Your task to perform on an android device: toggle notification dots Image 0: 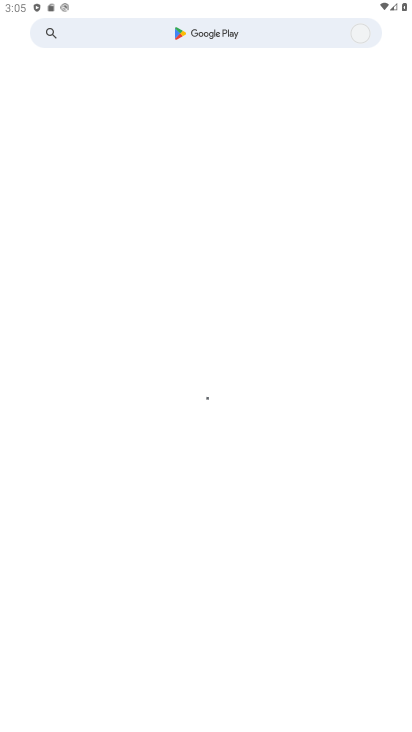
Step 0: press home button
Your task to perform on an android device: toggle notification dots Image 1: 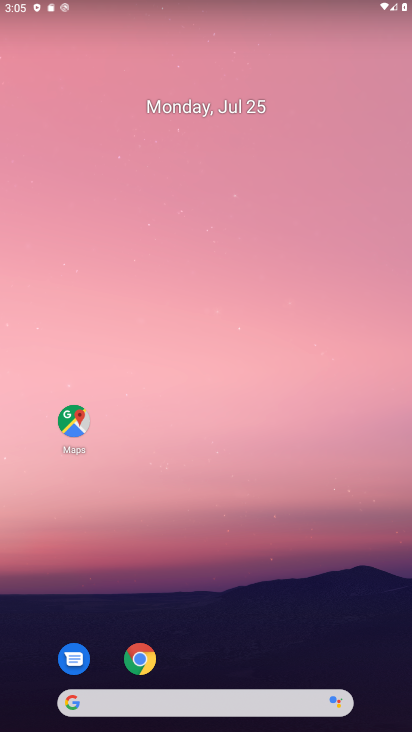
Step 1: drag from (302, 142) to (322, 32)
Your task to perform on an android device: toggle notification dots Image 2: 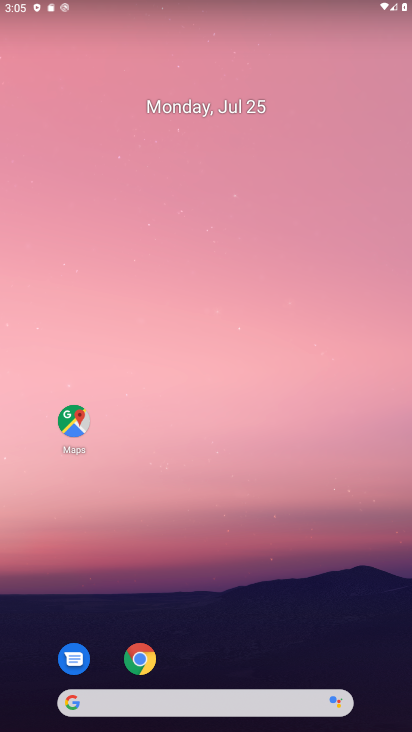
Step 2: drag from (173, 638) to (187, 278)
Your task to perform on an android device: toggle notification dots Image 3: 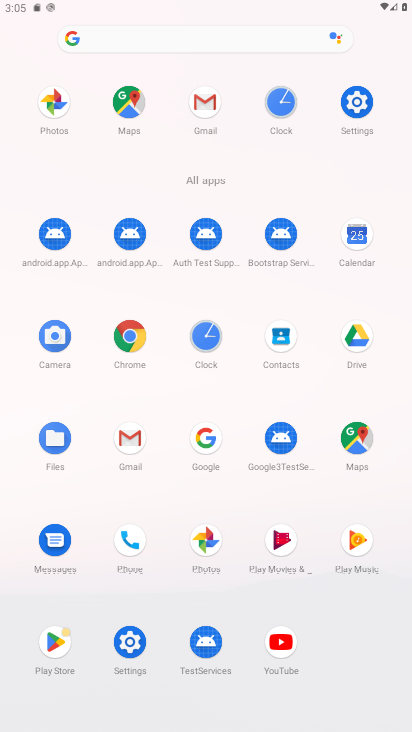
Step 3: click (353, 122)
Your task to perform on an android device: toggle notification dots Image 4: 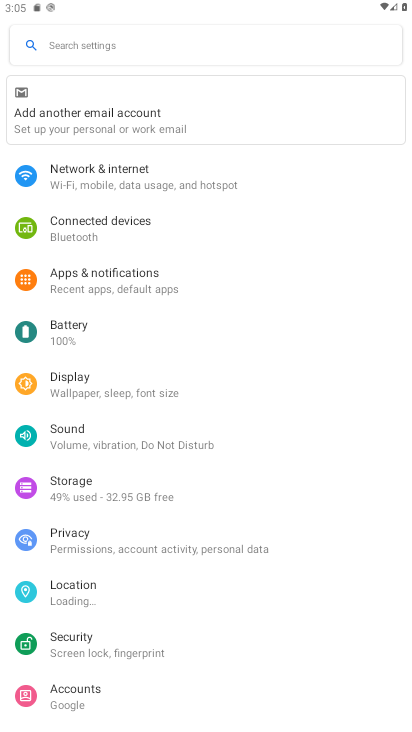
Step 4: click (104, 281)
Your task to perform on an android device: toggle notification dots Image 5: 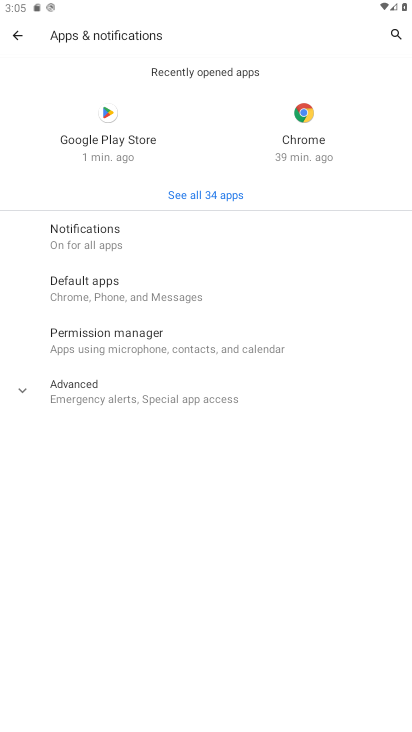
Step 5: click (92, 238)
Your task to perform on an android device: toggle notification dots Image 6: 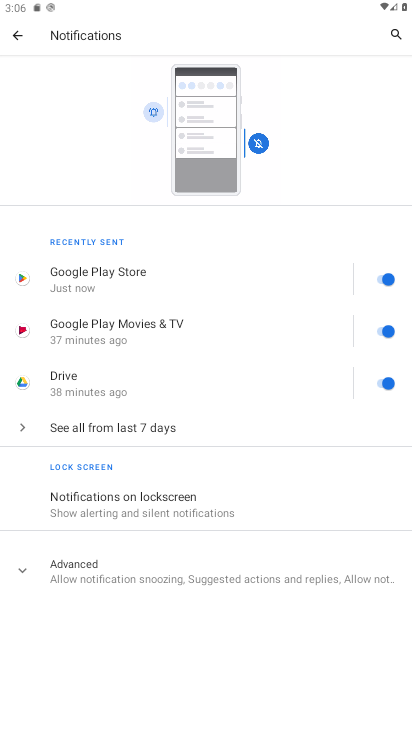
Step 6: click (98, 569)
Your task to perform on an android device: toggle notification dots Image 7: 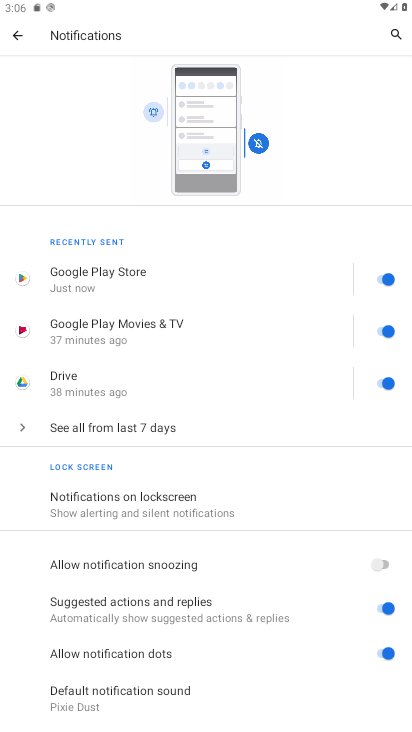
Step 7: click (381, 650)
Your task to perform on an android device: toggle notification dots Image 8: 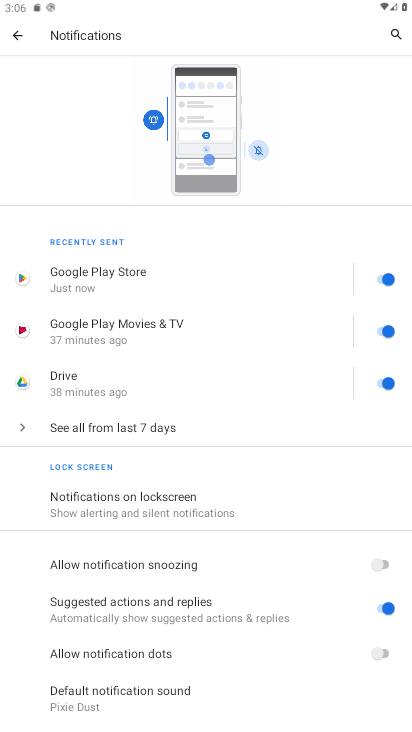
Step 8: task complete